Your task to perform on an android device: Search for seafood restaurants on Google Maps Image 0: 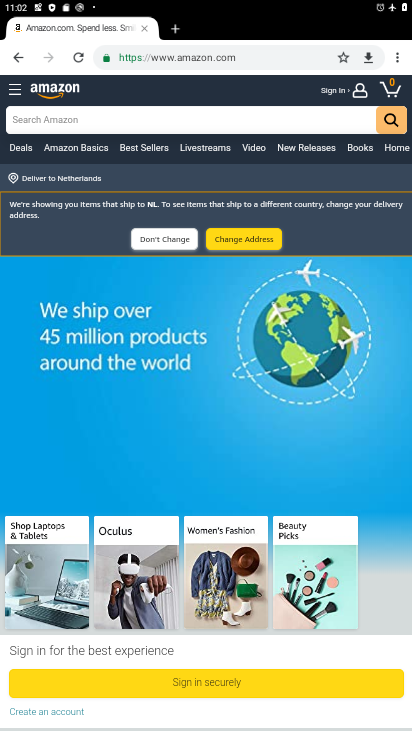
Step 0: press home button
Your task to perform on an android device: Search for seafood restaurants on Google Maps Image 1: 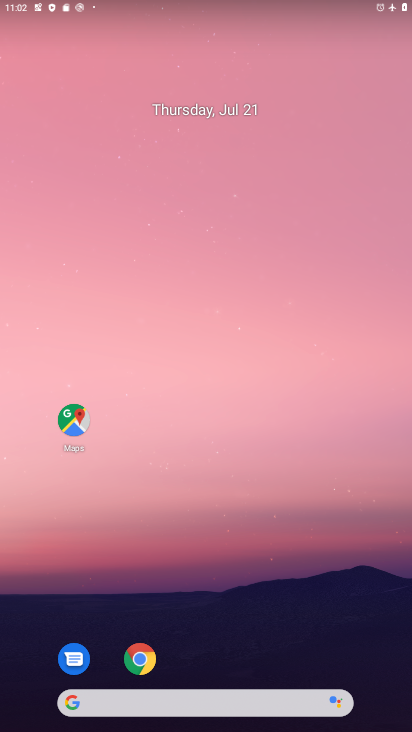
Step 1: click (70, 421)
Your task to perform on an android device: Search for seafood restaurants on Google Maps Image 2: 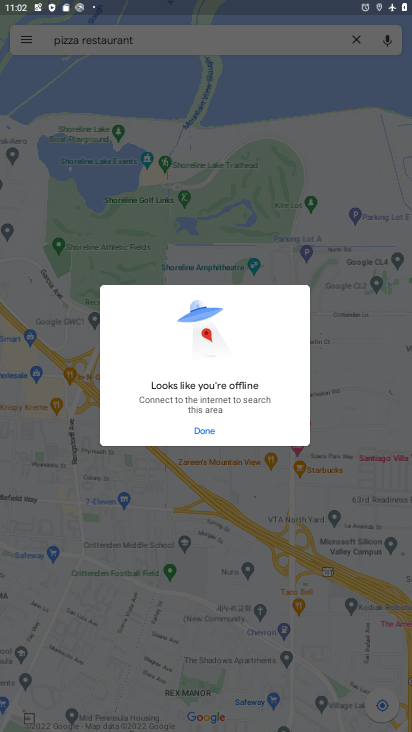
Step 2: task complete